Your task to perform on an android device: create a new album in the google photos Image 0: 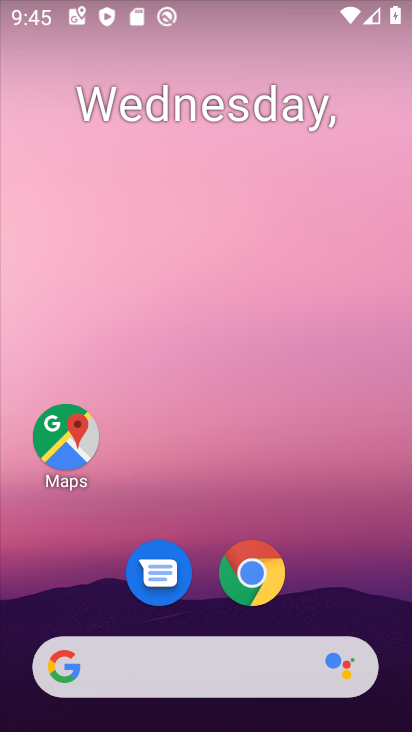
Step 0: drag from (370, 604) to (366, 250)
Your task to perform on an android device: create a new album in the google photos Image 1: 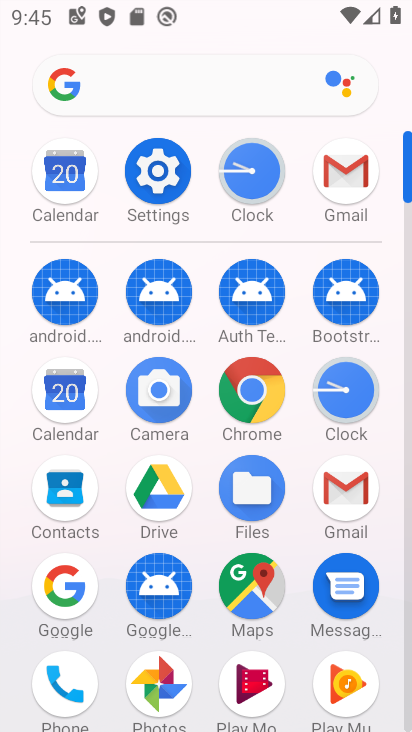
Step 1: click (139, 674)
Your task to perform on an android device: create a new album in the google photos Image 2: 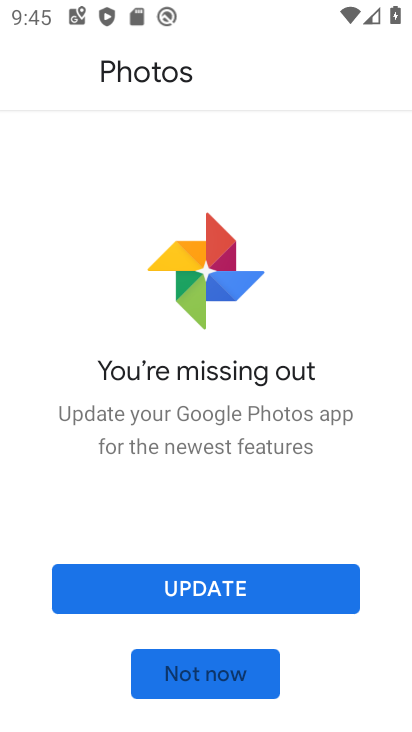
Step 2: click (218, 580)
Your task to perform on an android device: create a new album in the google photos Image 3: 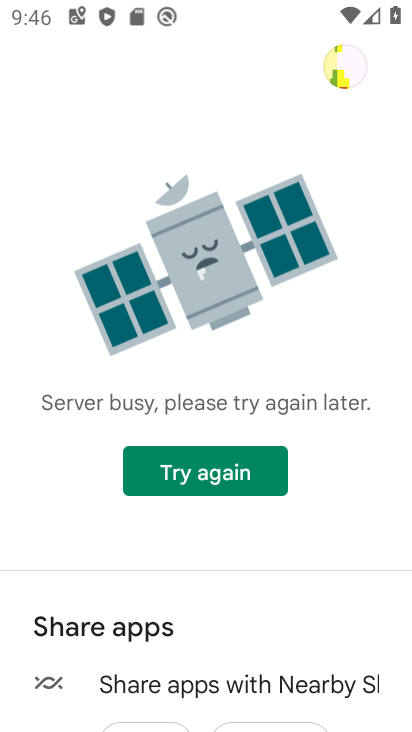
Step 3: click (216, 465)
Your task to perform on an android device: create a new album in the google photos Image 4: 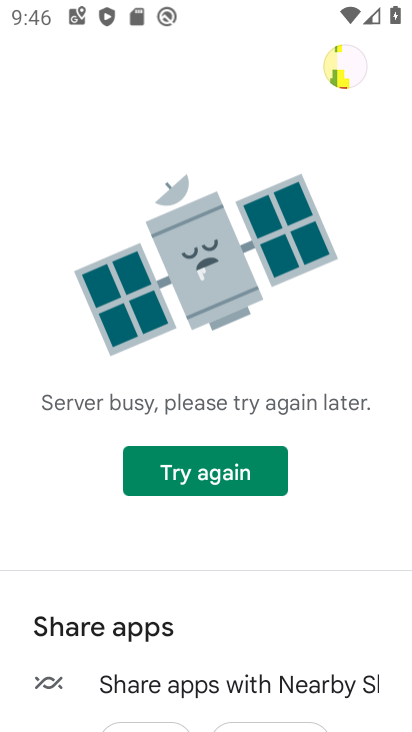
Step 4: click (216, 476)
Your task to perform on an android device: create a new album in the google photos Image 5: 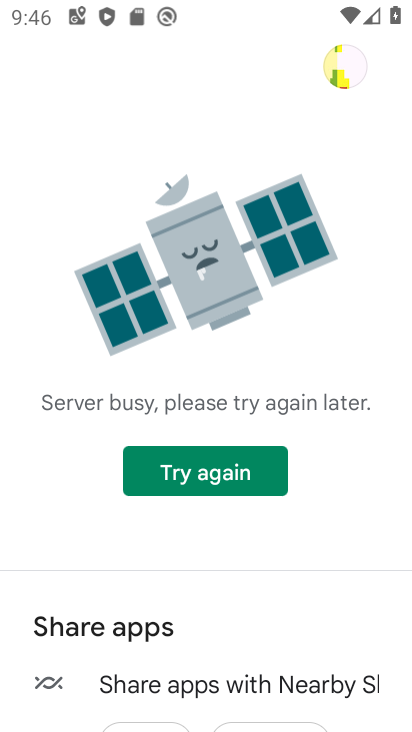
Step 5: task complete